Your task to perform on an android device: Open display settings Image 0: 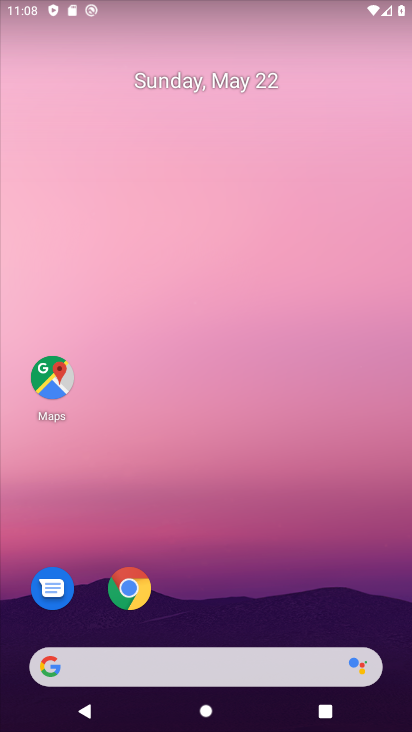
Step 0: drag from (212, 647) to (214, 1)
Your task to perform on an android device: Open display settings Image 1: 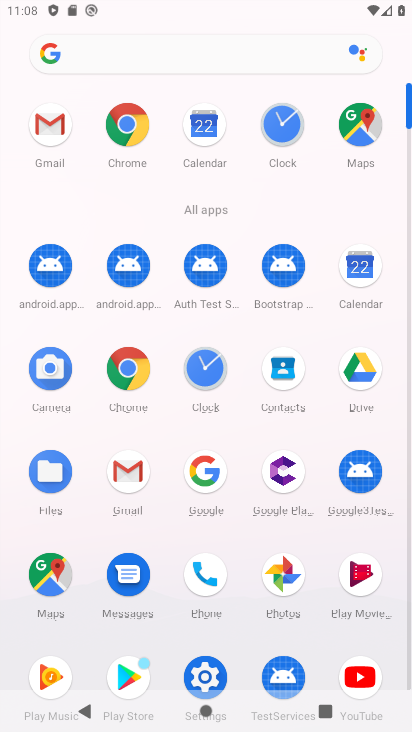
Step 1: click (200, 665)
Your task to perform on an android device: Open display settings Image 2: 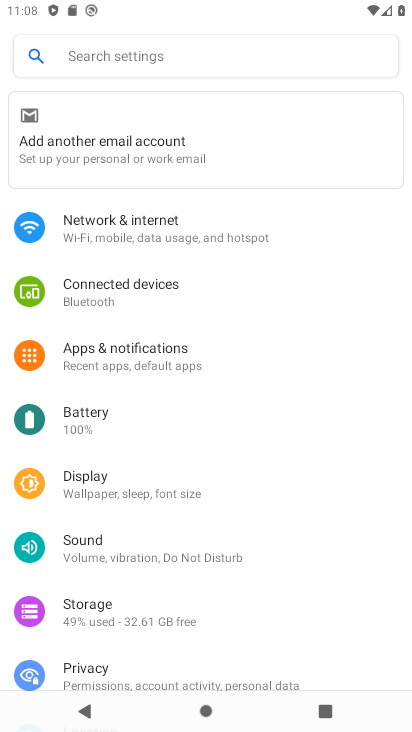
Step 2: click (87, 504)
Your task to perform on an android device: Open display settings Image 3: 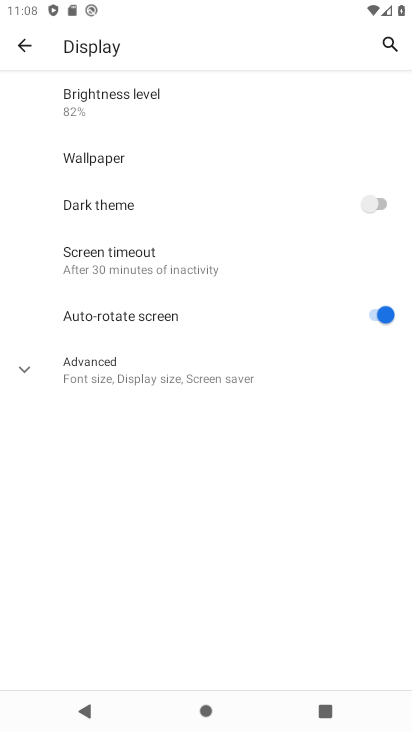
Step 3: click (116, 376)
Your task to perform on an android device: Open display settings Image 4: 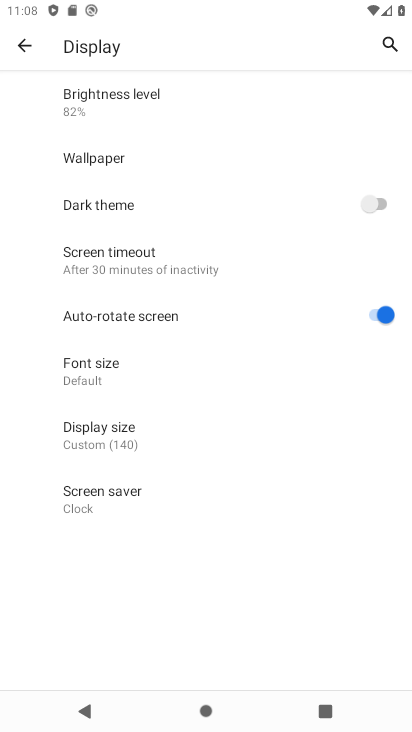
Step 4: task complete